Your task to perform on an android device: Go to Reddit.com Image 0: 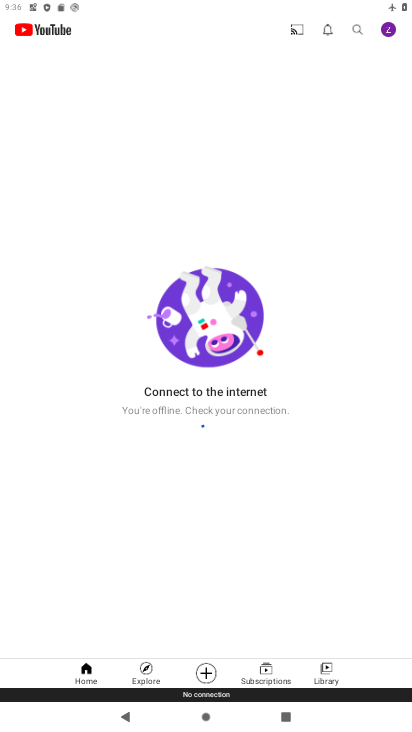
Step 0: press home button
Your task to perform on an android device: Go to Reddit.com Image 1: 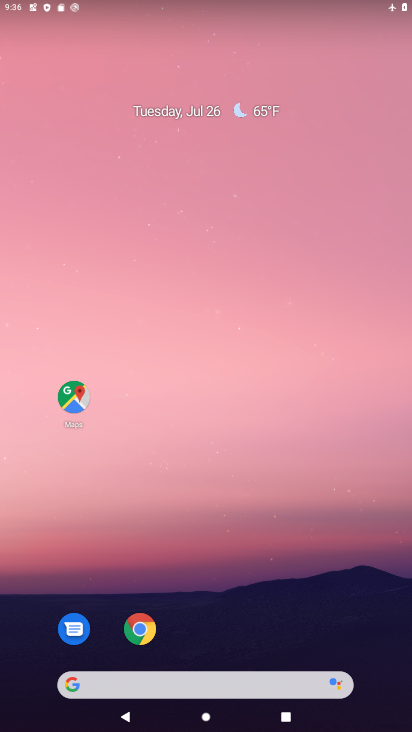
Step 1: drag from (308, 626) to (252, 205)
Your task to perform on an android device: Go to Reddit.com Image 2: 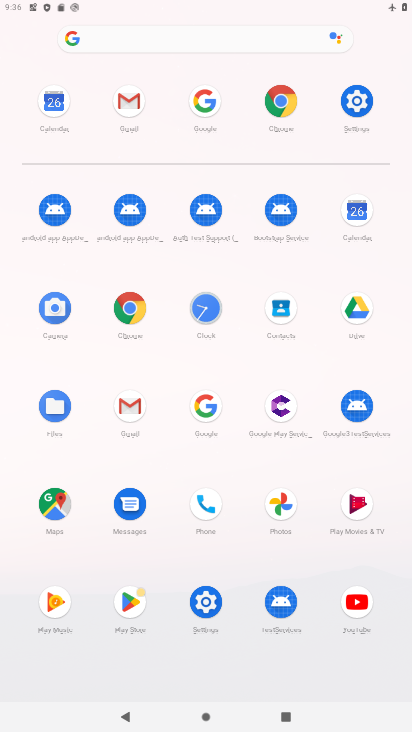
Step 2: click (131, 310)
Your task to perform on an android device: Go to Reddit.com Image 3: 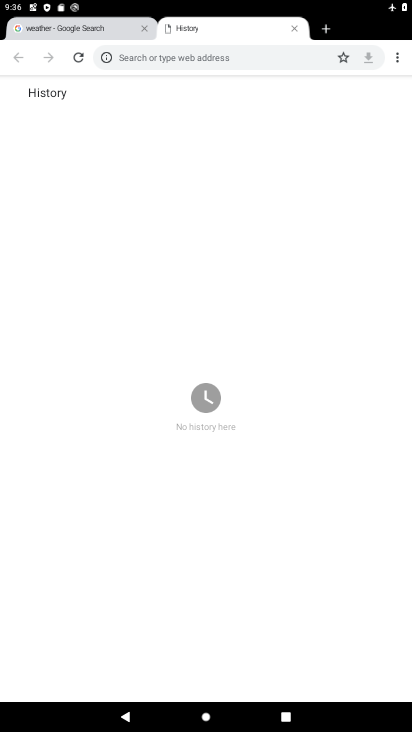
Step 3: click (218, 53)
Your task to perform on an android device: Go to Reddit.com Image 4: 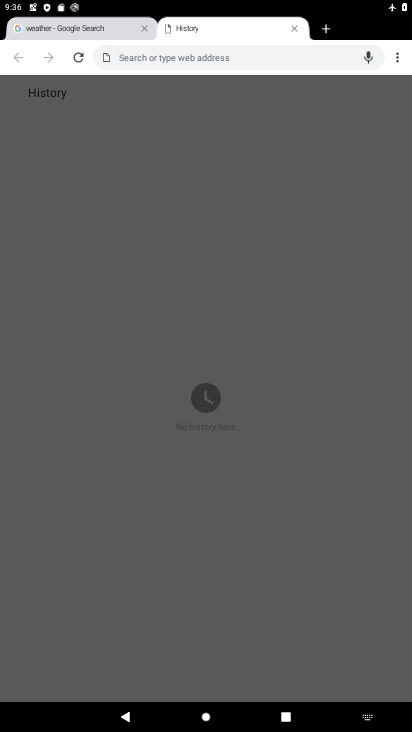
Step 4: type "reddit.com"
Your task to perform on an android device: Go to Reddit.com Image 5: 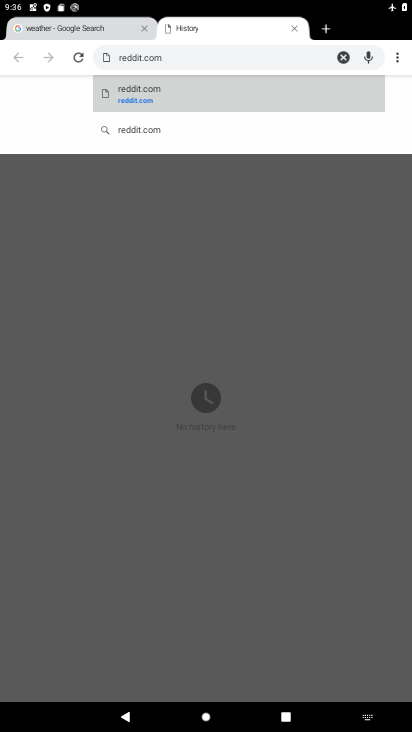
Step 5: click (138, 92)
Your task to perform on an android device: Go to Reddit.com Image 6: 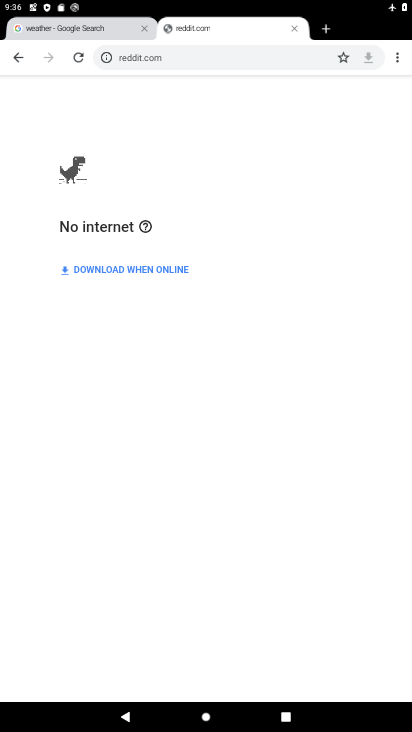
Step 6: task complete